Your task to perform on an android device: change timer sound Image 0: 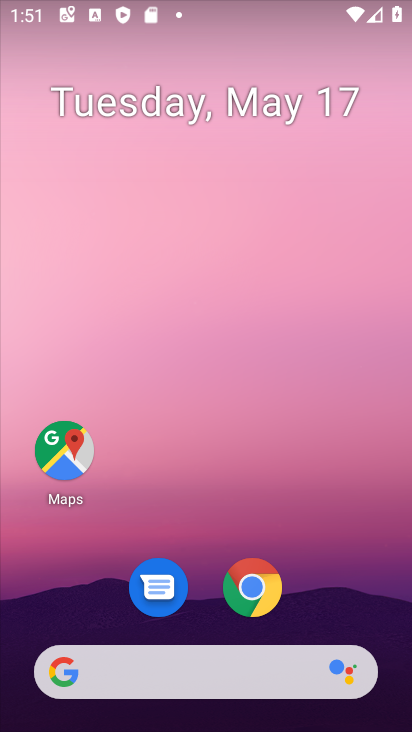
Step 0: drag from (212, 617) to (214, 82)
Your task to perform on an android device: change timer sound Image 1: 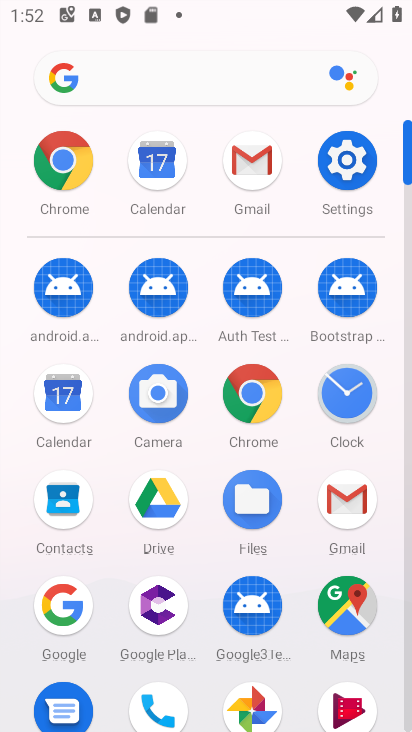
Step 1: click (352, 391)
Your task to perform on an android device: change timer sound Image 2: 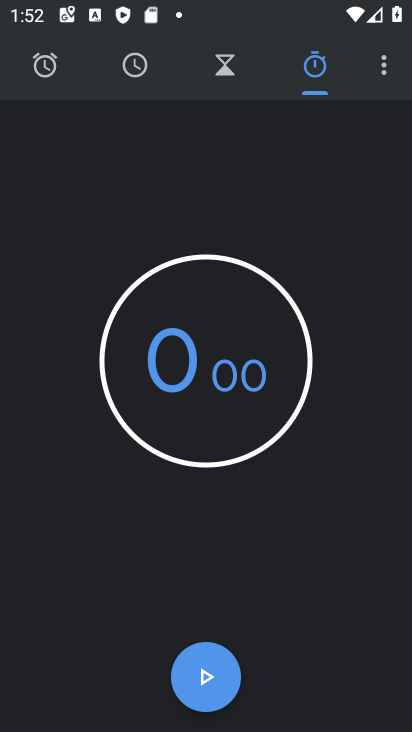
Step 2: click (389, 62)
Your task to perform on an android device: change timer sound Image 3: 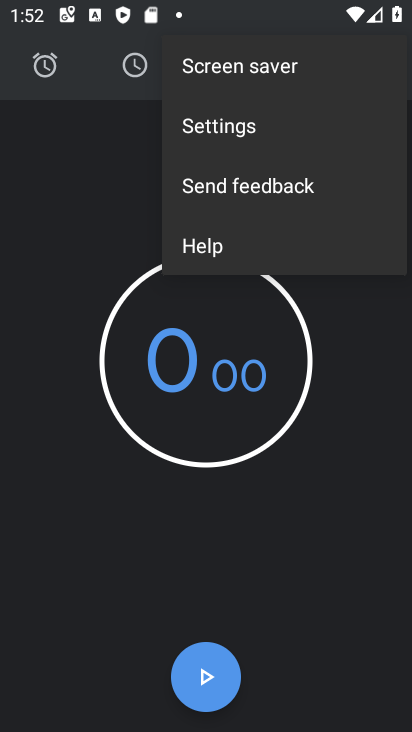
Step 3: click (272, 133)
Your task to perform on an android device: change timer sound Image 4: 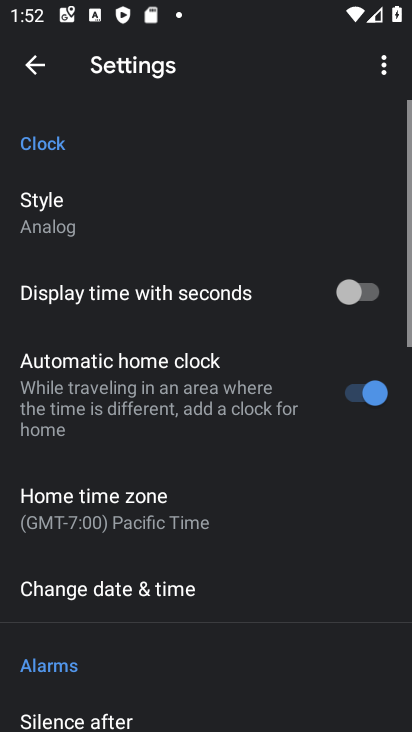
Step 4: drag from (242, 532) to (277, 167)
Your task to perform on an android device: change timer sound Image 5: 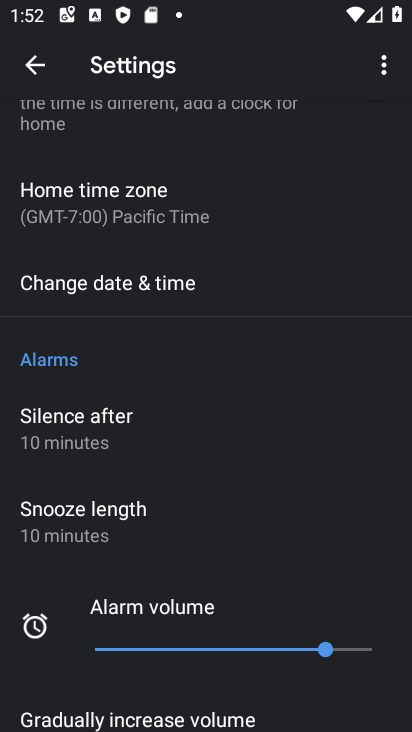
Step 5: drag from (239, 511) to (260, 147)
Your task to perform on an android device: change timer sound Image 6: 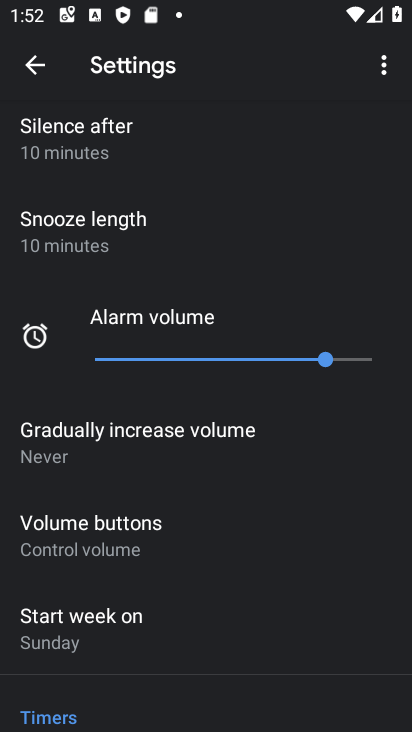
Step 6: drag from (180, 559) to (254, 136)
Your task to perform on an android device: change timer sound Image 7: 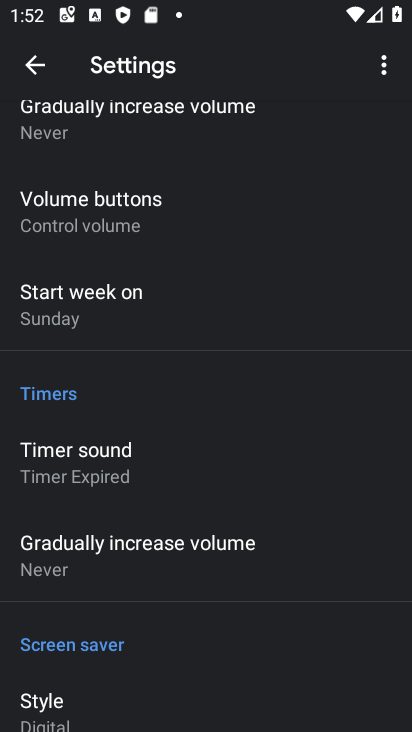
Step 7: click (110, 462)
Your task to perform on an android device: change timer sound Image 8: 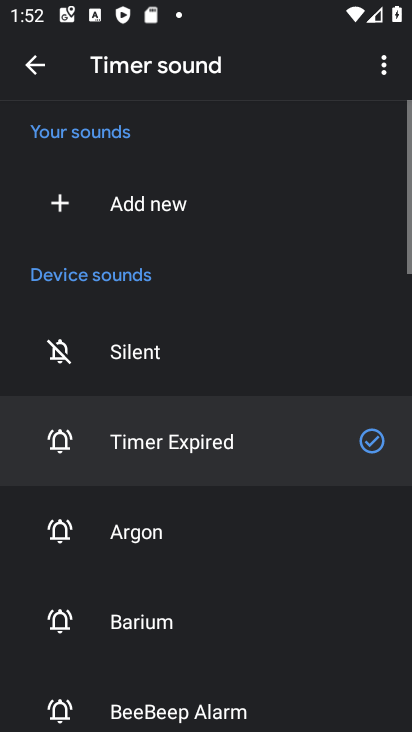
Step 8: click (244, 597)
Your task to perform on an android device: change timer sound Image 9: 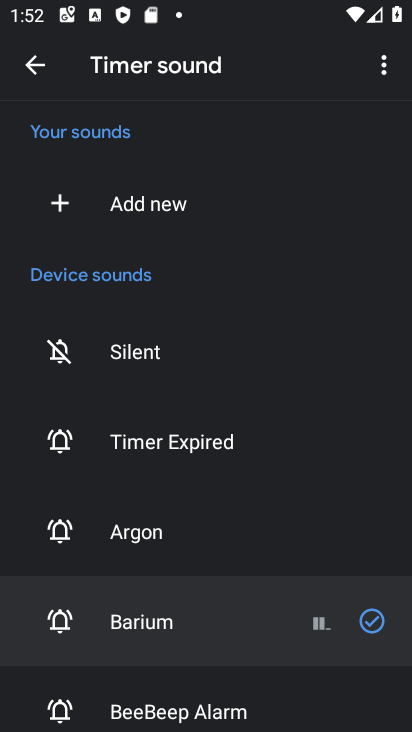
Step 9: task complete